Your task to perform on an android device: Open location settings Image 0: 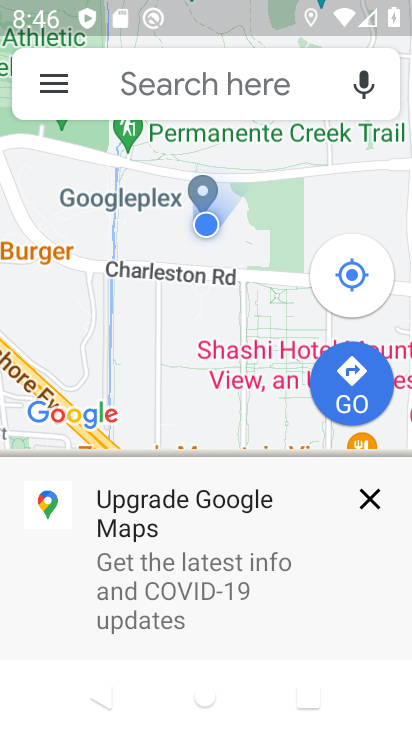
Step 0: press back button
Your task to perform on an android device: Open location settings Image 1: 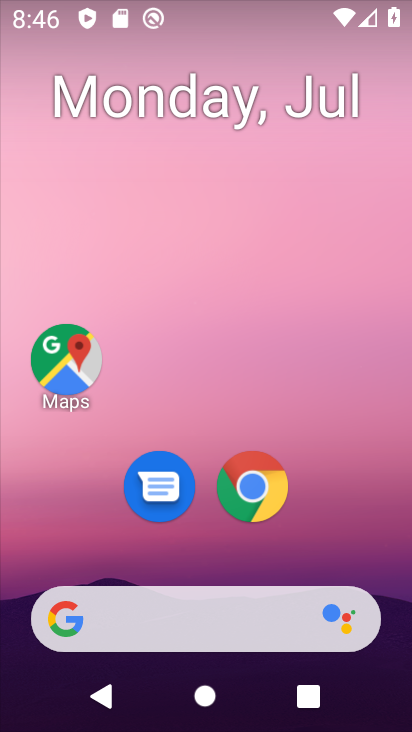
Step 1: drag from (74, 553) to (235, 17)
Your task to perform on an android device: Open location settings Image 2: 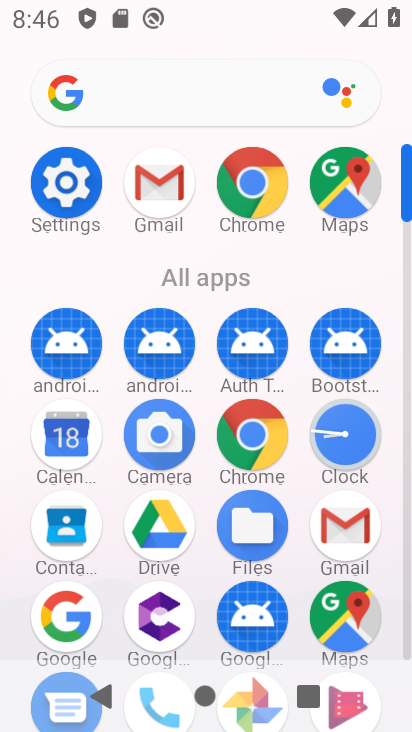
Step 2: click (51, 167)
Your task to perform on an android device: Open location settings Image 3: 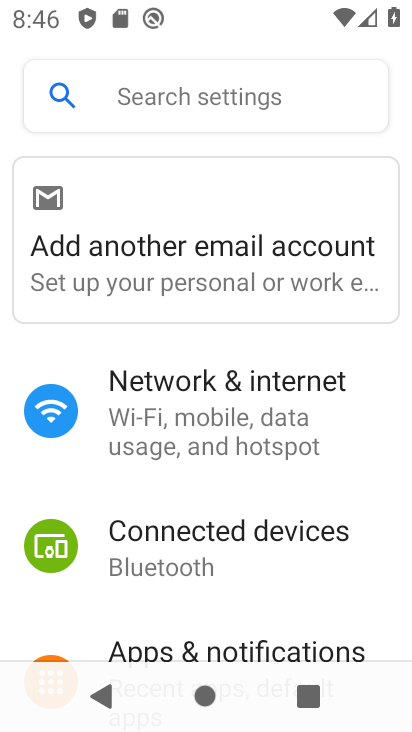
Step 3: drag from (202, 629) to (271, 71)
Your task to perform on an android device: Open location settings Image 4: 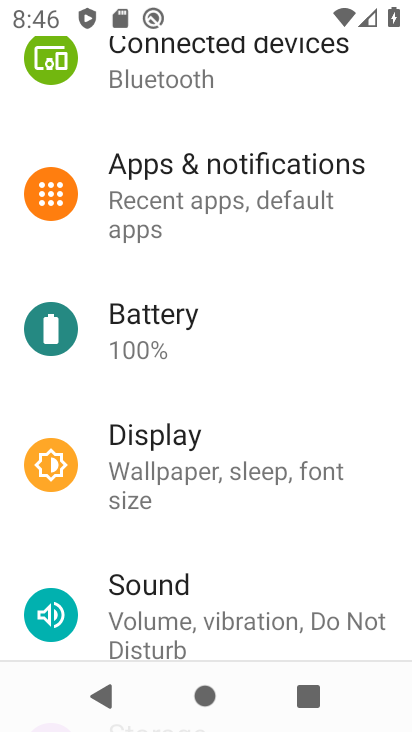
Step 4: drag from (162, 623) to (260, 38)
Your task to perform on an android device: Open location settings Image 5: 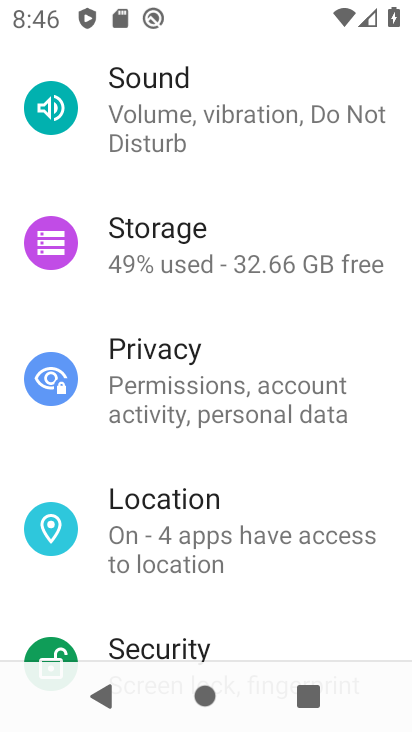
Step 5: click (177, 517)
Your task to perform on an android device: Open location settings Image 6: 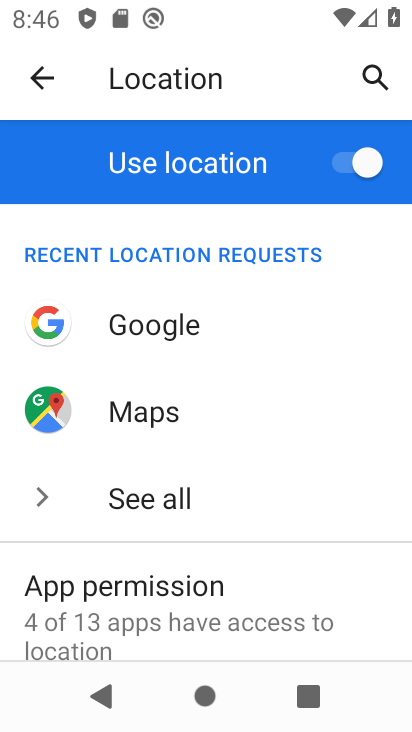
Step 6: task complete